Your task to perform on an android device: create a new album in the google photos Image 0: 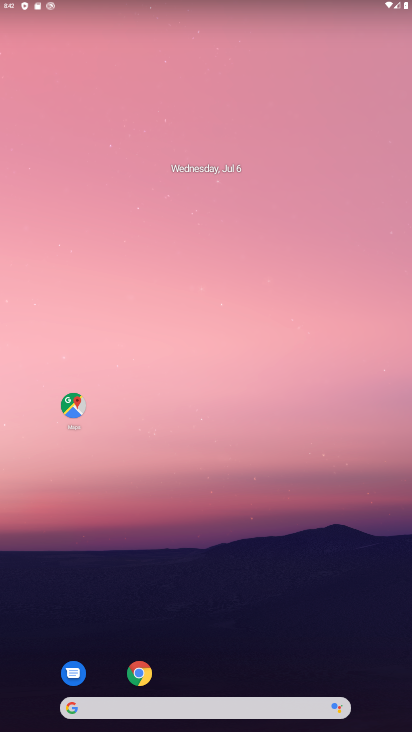
Step 0: drag from (270, 612) to (274, 215)
Your task to perform on an android device: create a new album in the google photos Image 1: 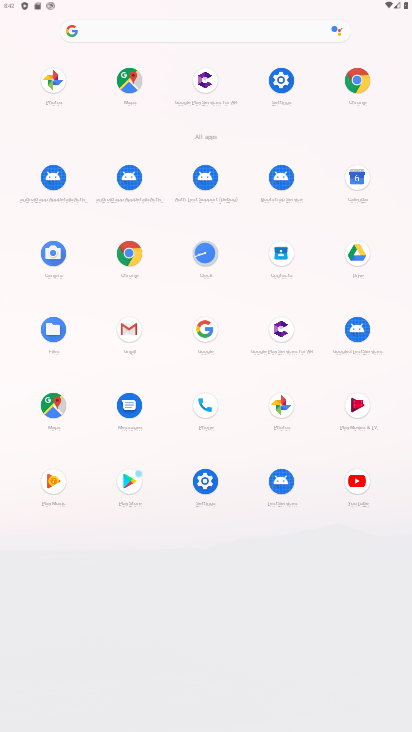
Step 1: click (50, 75)
Your task to perform on an android device: create a new album in the google photos Image 2: 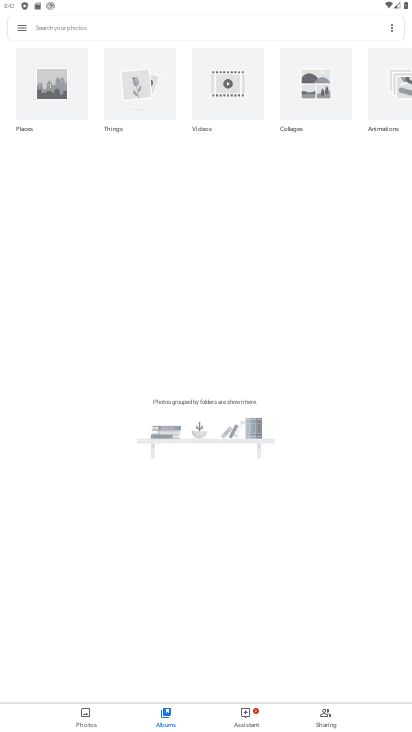
Step 2: drag from (59, 685) to (92, 714)
Your task to perform on an android device: create a new album in the google photos Image 3: 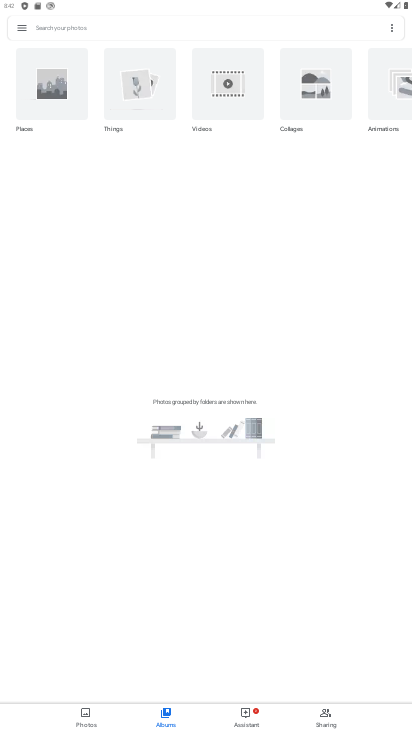
Step 3: click (84, 710)
Your task to perform on an android device: create a new album in the google photos Image 4: 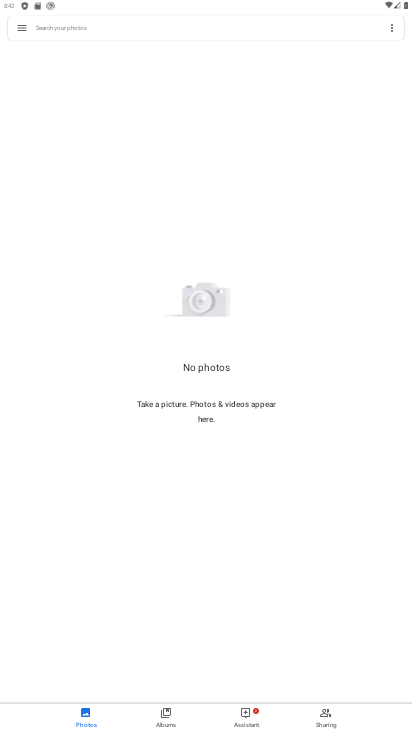
Step 4: click (196, 405)
Your task to perform on an android device: create a new album in the google photos Image 5: 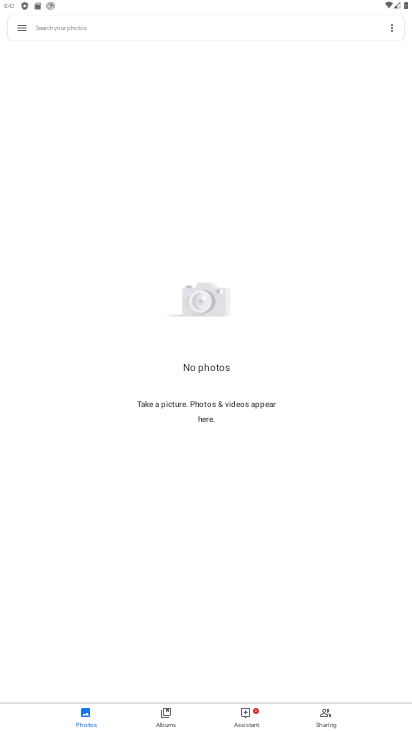
Step 5: click (219, 352)
Your task to perform on an android device: create a new album in the google photos Image 6: 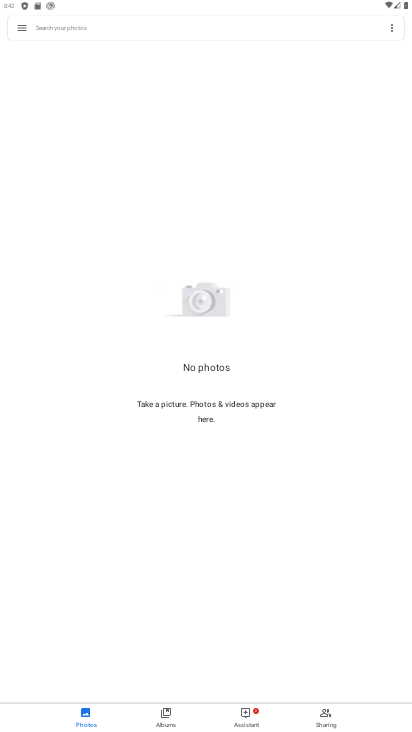
Step 6: task complete